Your task to perform on an android device: choose inbox layout in the gmail app Image 0: 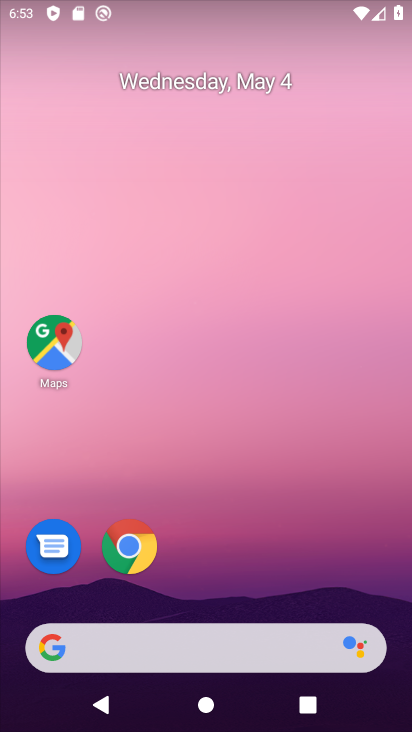
Step 0: drag from (309, 529) to (313, 9)
Your task to perform on an android device: choose inbox layout in the gmail app Image 1: 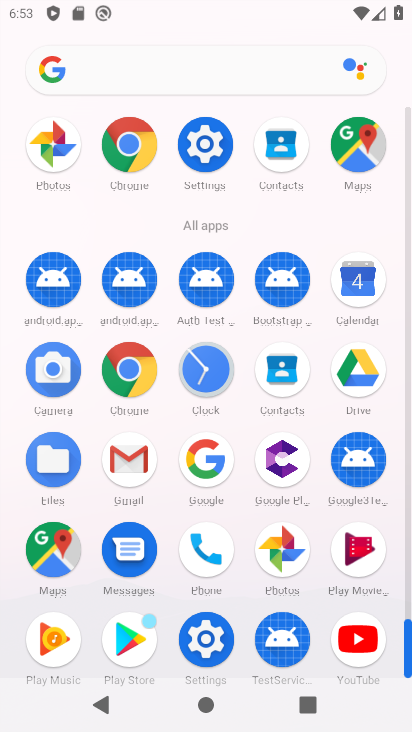
Step 1: click (129, 462)
Your task to perform on an android device: choose inbox layout in the gmail app Image 2: 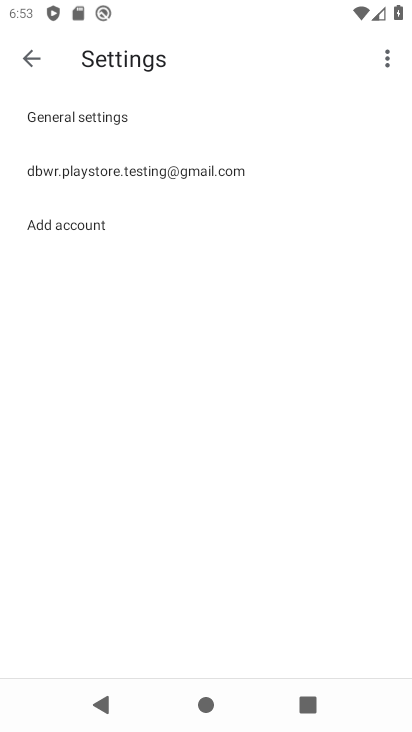
Step 2: click (98, 178)
Your task to perform on an android device: choose inbox layout in the gmail app Image 3: 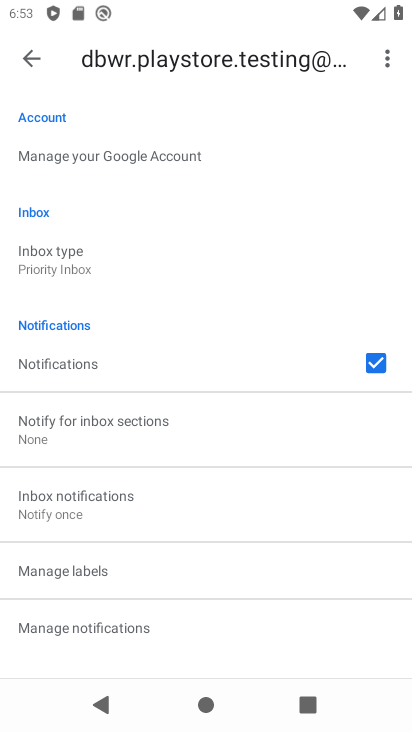
Step 3: click (107, 258)
Your task to perform on an android device: choose inbox layout in the gmail app Image 4: 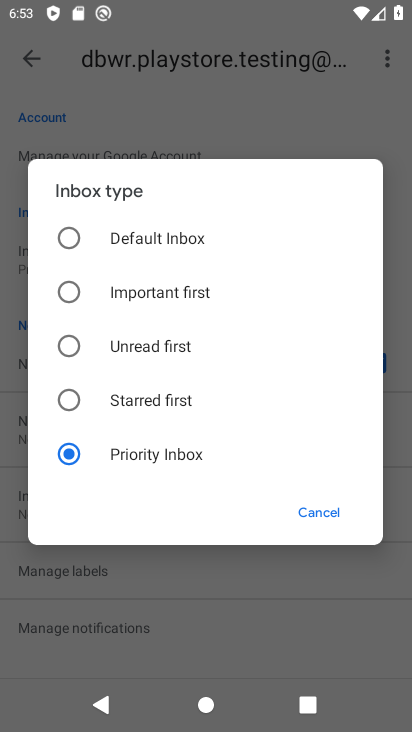
Step 4: click (133, 237)
Your task to perform on an android device: choose inbox layout in the gmail app Image 5: 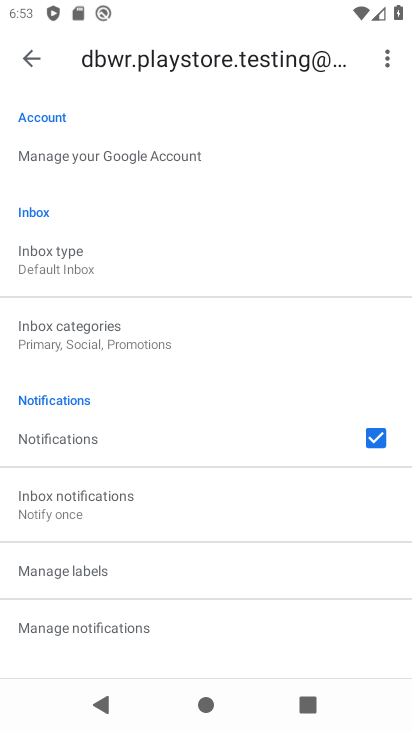
Step 5: task complete